Your task to perform on an android device: Open the stopwatch Image 0: 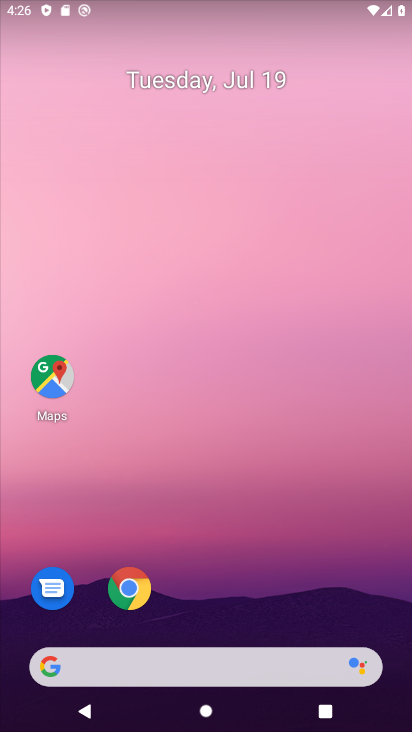
Step 0: drag from (353, 609) to (339, 75)
Your task to perform on an android device: Open the stopwatch Image 1: 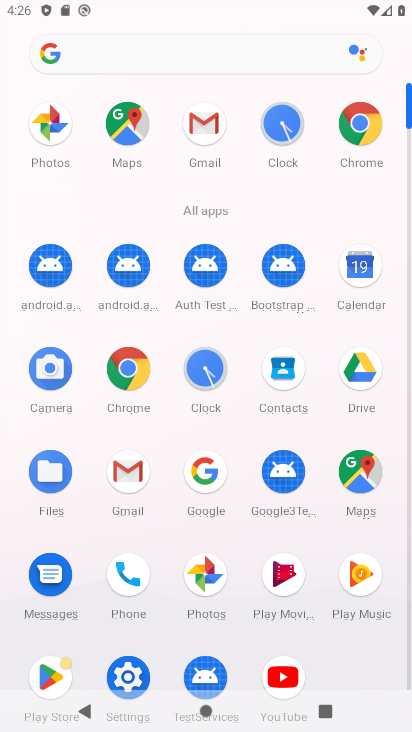
Step 1: click (203, 370)
Your task to perform on an android device: Open the stopwatch Image 2: 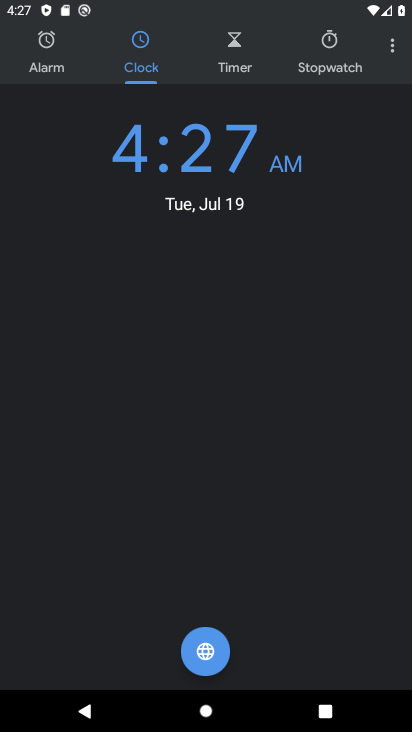
Step 2: click (333, 56)
Your task to perform on an android device: Open the stopwatch Image 3: 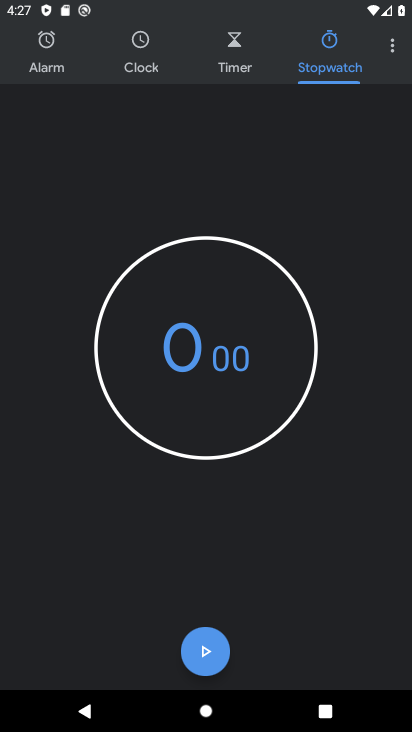
Step 3: task complete